Your task to perform on an android device: turn off location Image 0: 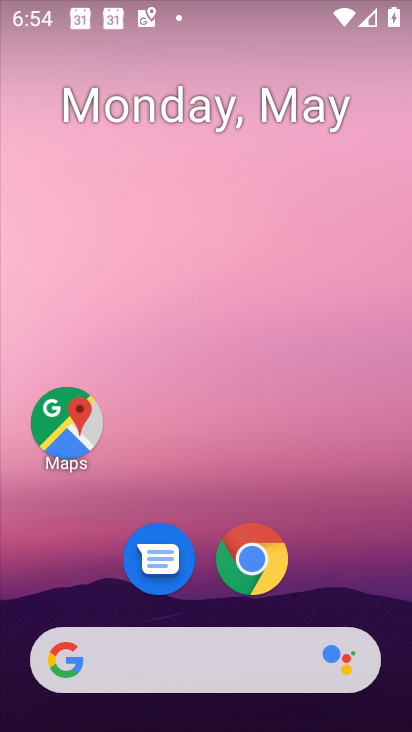
Step 0: drag from (381, 692) to (298, 157)
Your task to perform on an android device: turn off location Image 1: 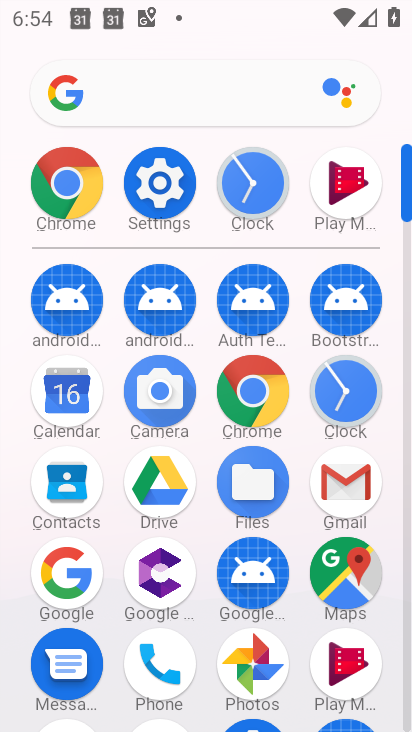
Step 1: click (164, 182)
Your task to perform on an android device: turn off location Image 2: 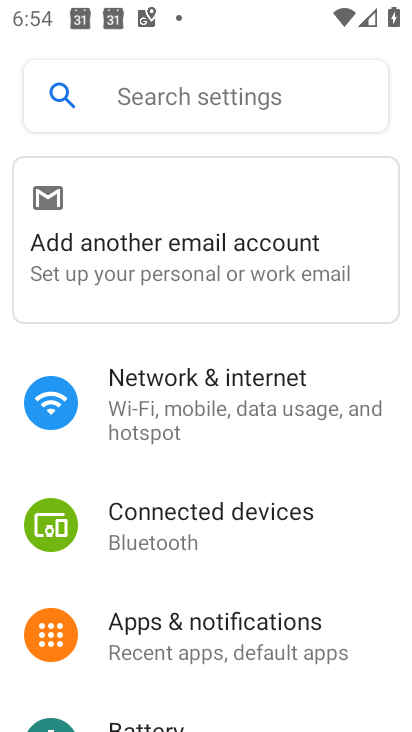
Step 2: drag from (196, 660) to (286, 196)
Your task to perform on an android device: turn off location Image 3: 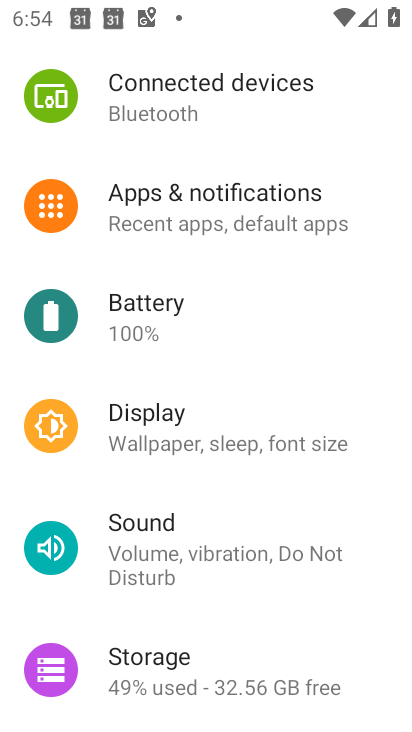
Step 3: drag from (168, 639) to (210, 240)
Your task to perform on an android device: turn off location Image 4: 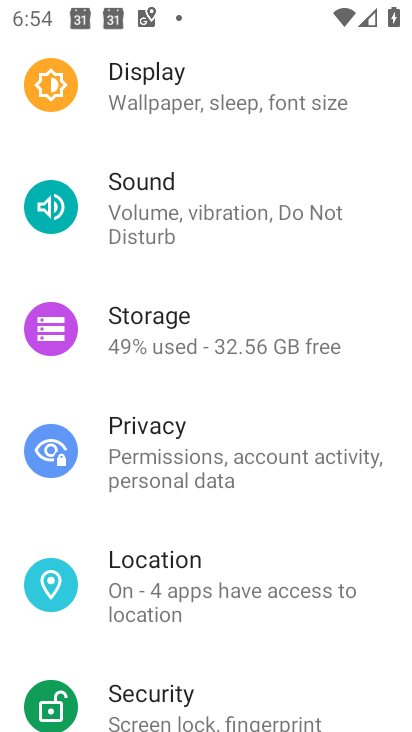
Step 4: click (142, 615)
Your task to perform on an android device: turn off location Image 5: 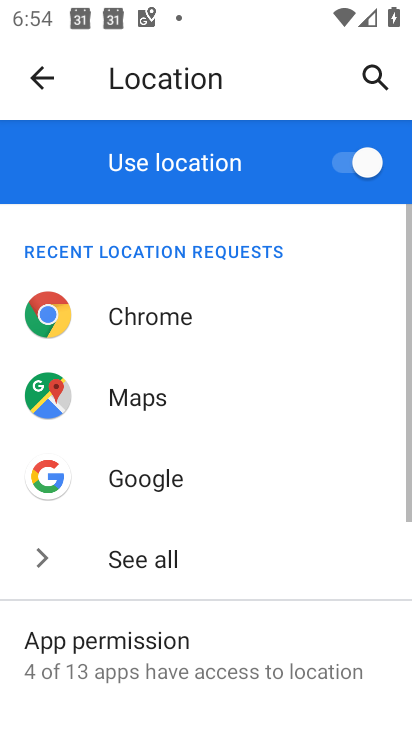
Step 5: click (325, 155)
Your task to perform on an android device: turn off location Image 6: 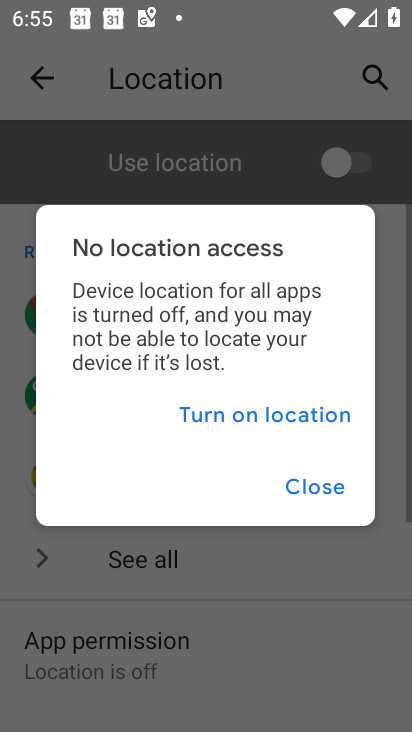
Step 6: task complete